Your task to perform on an android device: check storage Image 0: 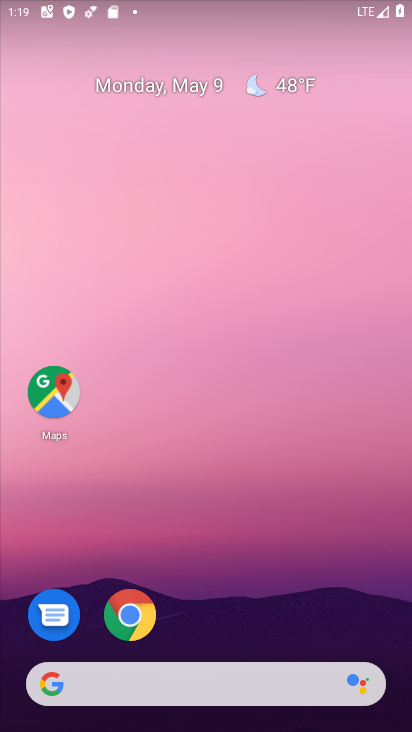
Step 0: drag from (346, 634) to (307, 35)
Your task to perform on an android device: check storage Image 1: 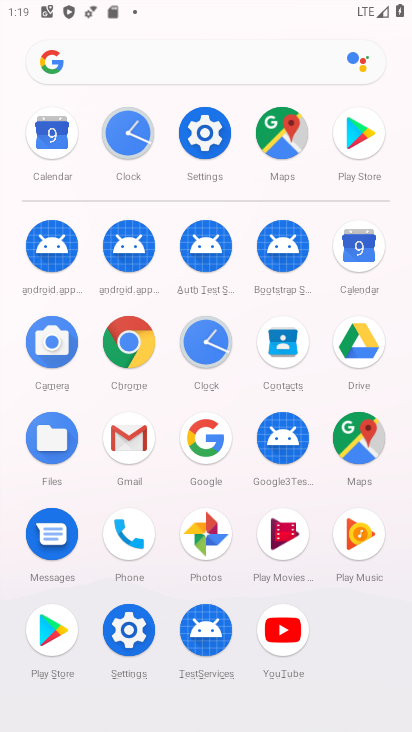
Step 1: click (127, 636)
Your task to perform on an android device: check storage Image 2: 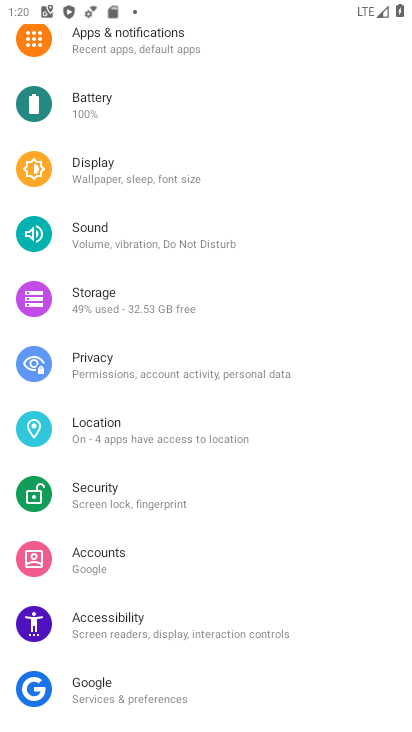
Step 2: click (102, 286)
Your task to perform on an android device: check storage Image 3: 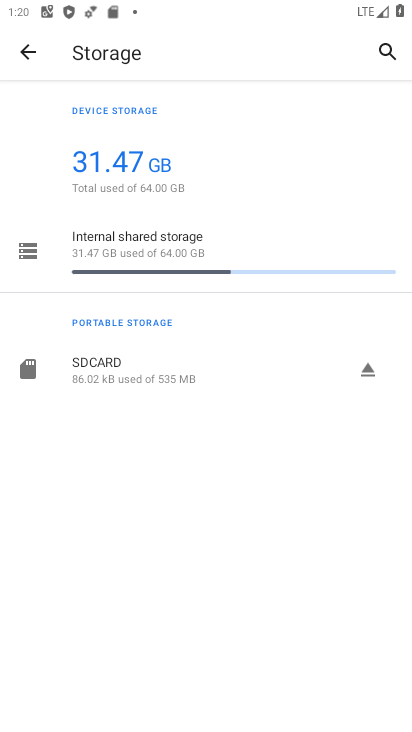
Step 3: task complete